Your task to perform on an android device: Is it going to rain tomorrow? Image 0: 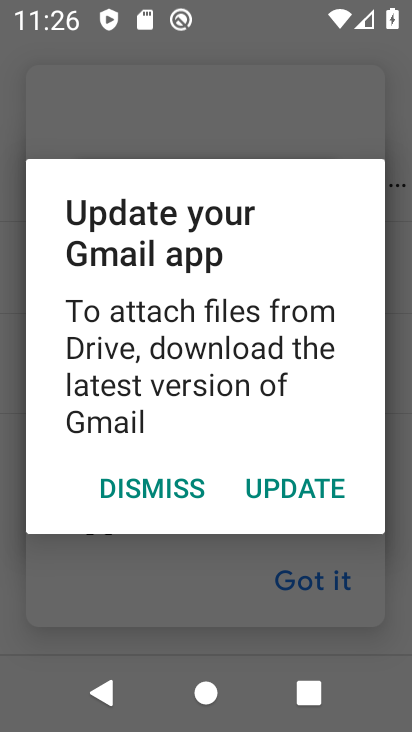
Step 0: press home button
Your task to perform on an android device: Is it going to rain tomorrow? Image 1: 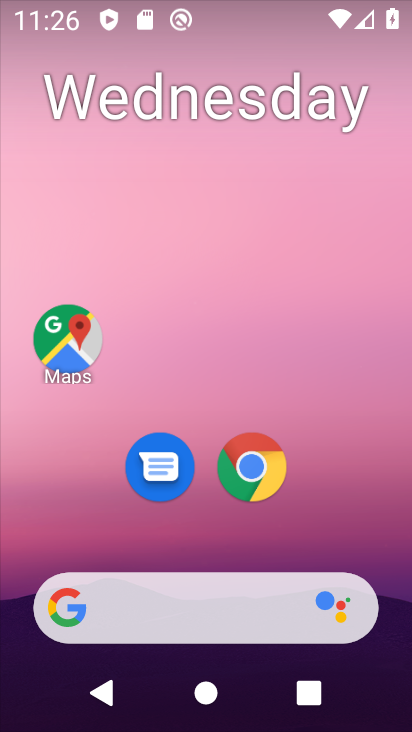
Step 1: drag from (30, 173) to (411, 169)
Your task to perform on an android device: Is it going to rain tomorrow? Image 2: 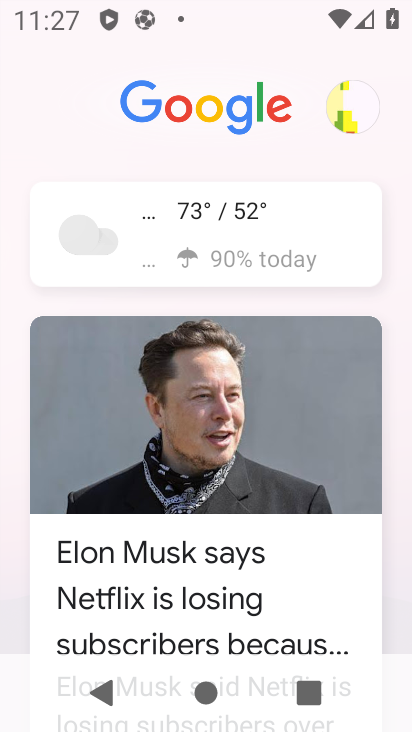
Step 2: drag from (329, 476) to (268, 221)
Your task to perform on an android device: Is it going to rain tomorrow? Image 3: 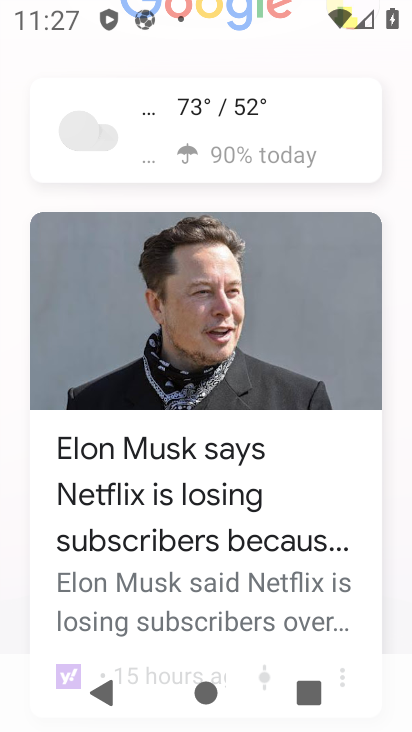
Step 3: click (259, 130)
Your task to perform on an android device: Is it going to rain tomorrow? Image 4: 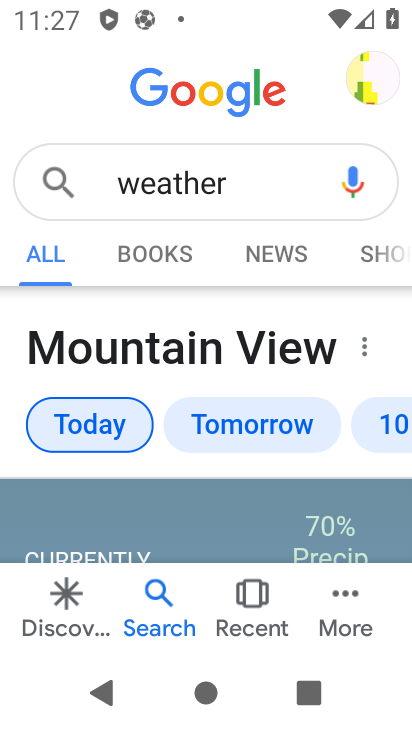
Step 4: drag from (272, 544) to (247, 339)
Your task to perform on an android device: Is it going to rain tomorrow? Image 5: 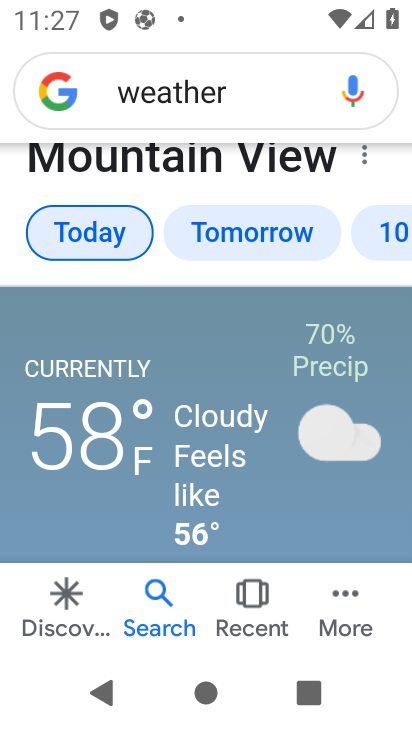
Step 5: click (226, 243)
Your task to perform on an android device: Is it going to rain tomorrow? Image 6: 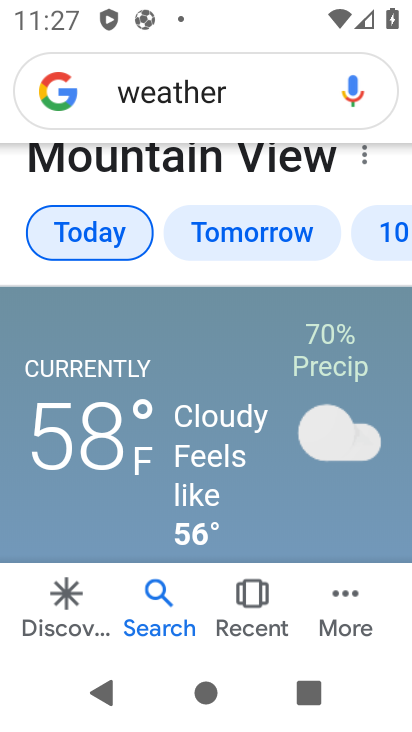
Step 6: click (215, 238)
Your task to perform on an android device: Is it going to rain tomorrow? Image 7: 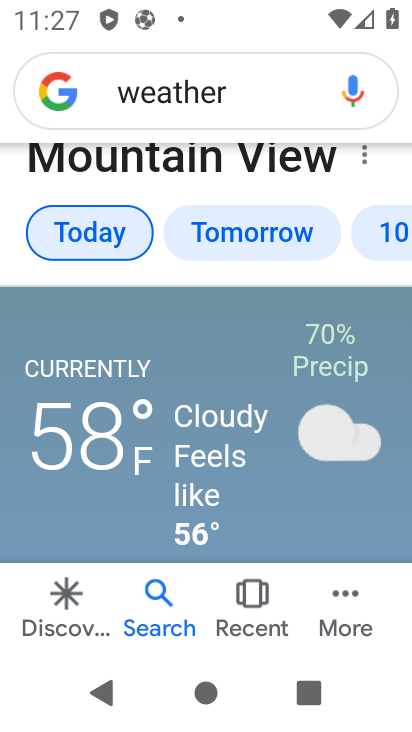
Step 7: click (248, 249)
Your task to perform on an android device: Is it going to rain tomorrow? Image 8: 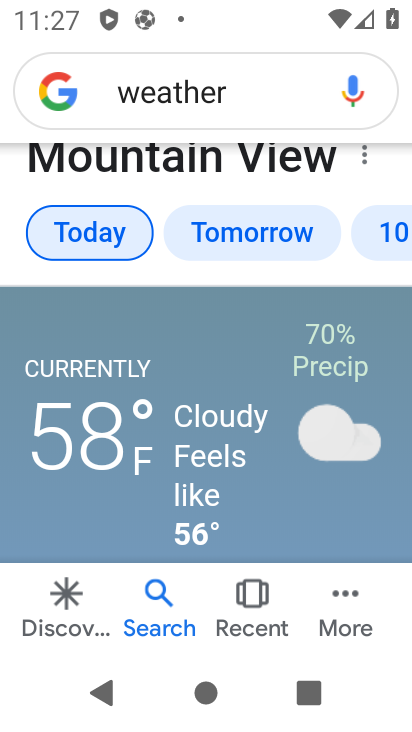
Step 8: click (248, 239)
Your task to perform on an android device: Is it going to rain tomorrow? Image 9: 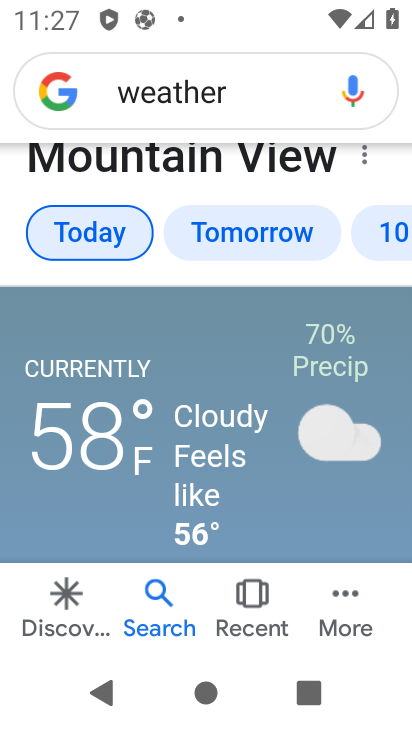
Step 9: click (388, 232)
Your task to perform on an android device: Is it going to rain tomorrow? Image 10: 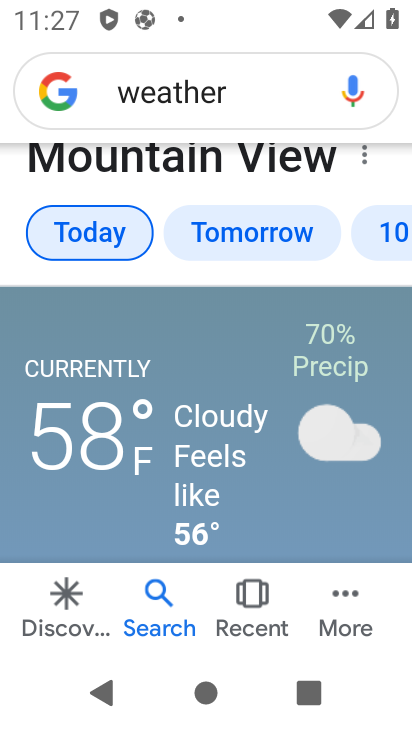
Step 10: click (242, 235)
Your task to perform on an android device: Is it going to rain tomorrow? Image 11: 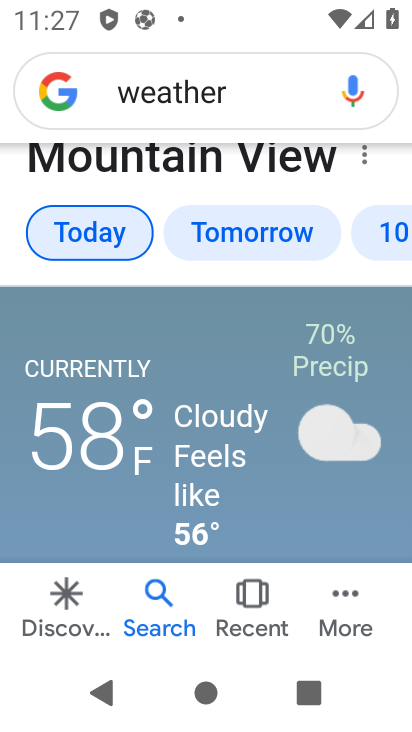
Step 11: drag from (193, 576) to (196, 114)
Your task to perform on an android device: Is it going to rain tomorrow? Image 12: 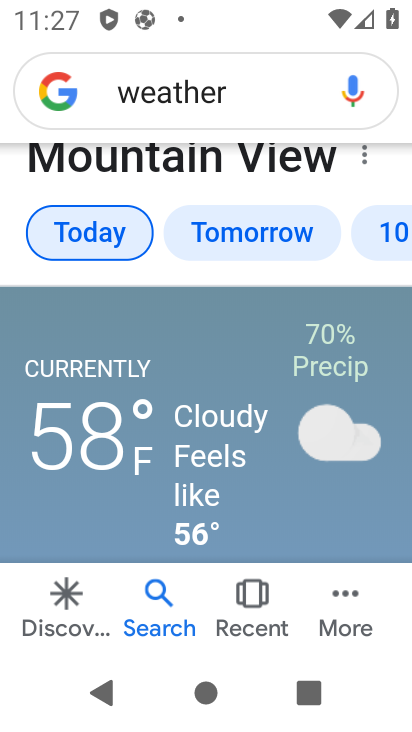
Step 12: drag from (242, 629) to (191, 519)
Your task to perform on an android device: Is it going to rain tomorrow? Image 13: 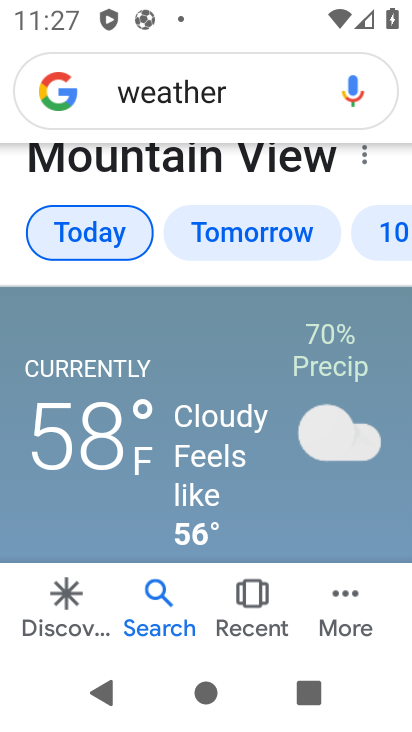
Step 13: drag from (265, 233) to (241, 455)
Your task to perform on an android device: Is it going to rain tomorrow? Image 14: 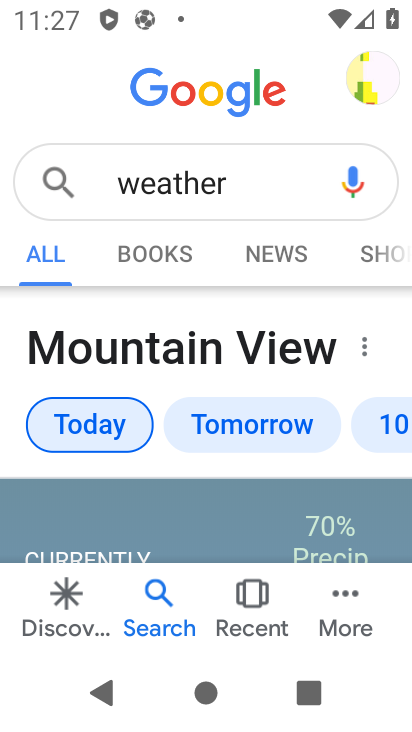
Step 14: click (214, 429)
Your task to perform on an android device: Is it going to rain tomorrow? Image 15: 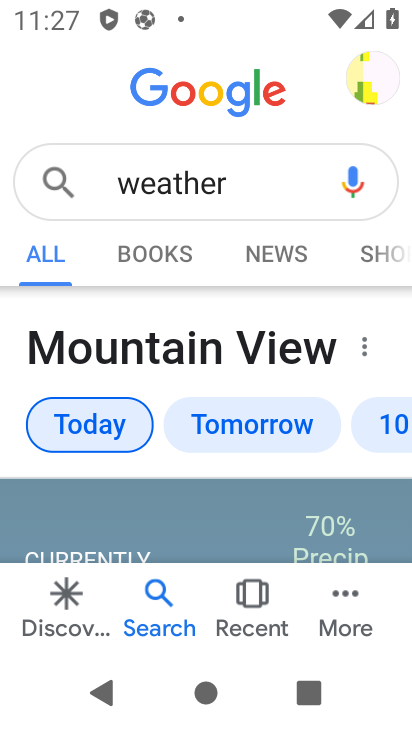
Step 15: drag from (245, 510) to (304, 126)
Your task to perform on an android device: Is it going to rain tomorrow? Image 16: 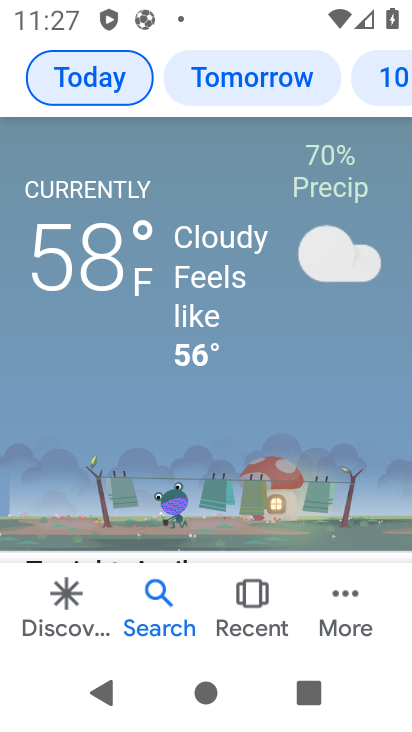
Step 16: click (278, 78)
Your task to perform on an android device: Is it going to rain tomorrow? Image 17: 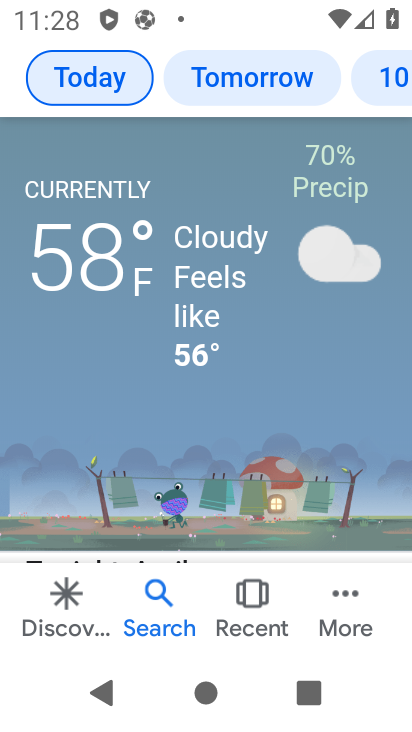
Step 17: task complete